Your task to perform on an android device: Go to display settings Image 0: 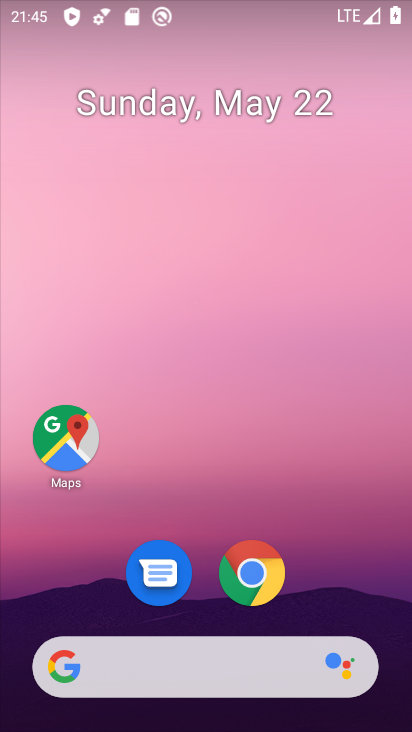
Step 0: press home button
Your task to perform on an android device: Go to display settings Image 1: 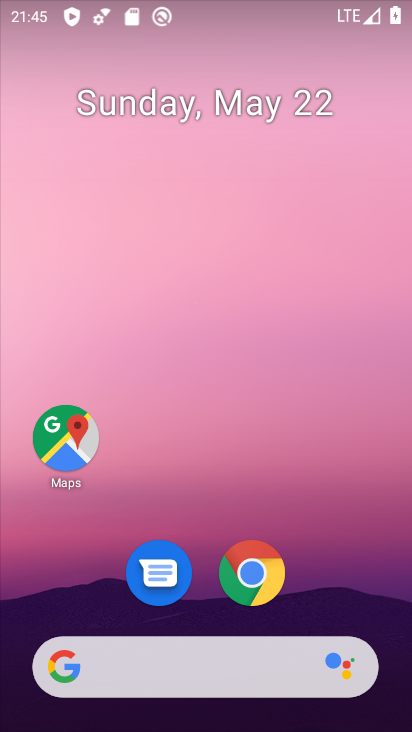
Step 1: drag from (396, 601) to (370, 86)
Your task to perform on an android device: Go to display settings Image 2: 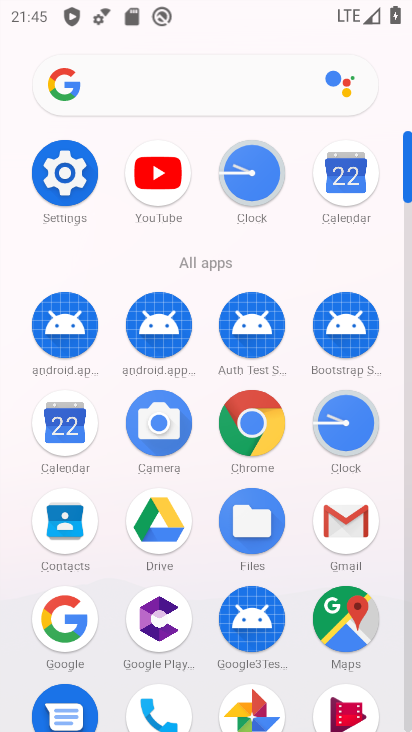
Step 2: click (84, 174)
Your task to perform on an android device: Go to display settings Image 3: 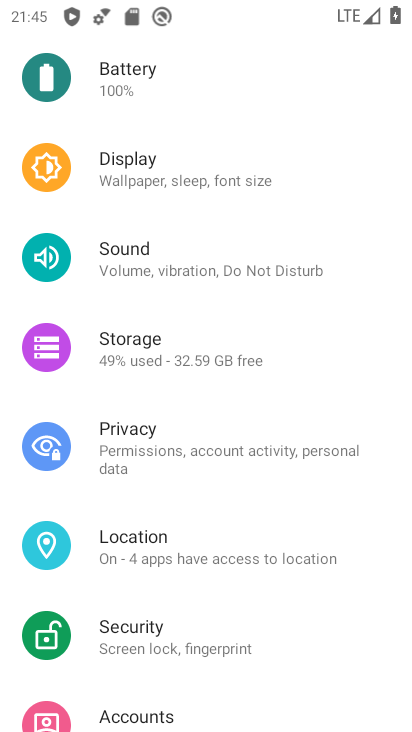
Step 3: click (86, 174)
Your task to perform on an android device: Go to display settings Image 4: 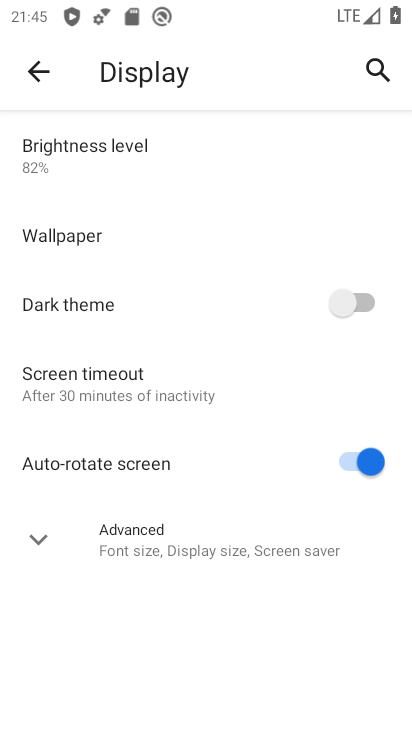
Step 4: task complete